Your task to perform on an android device: Turn off the flashlight Image 0: 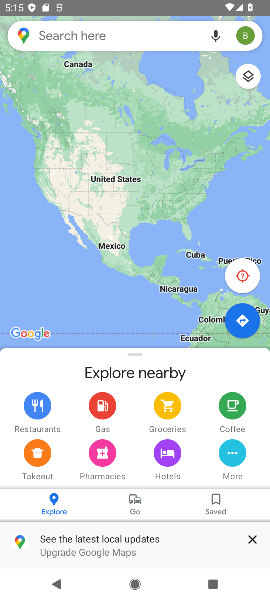
Step 0: press home button
Your task to perform on an android device: Turn off the flashlight Image 1: 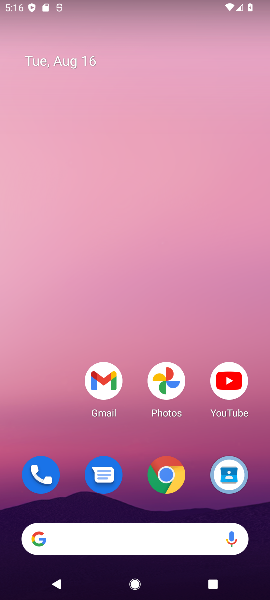
Step 1: drag from (206, 452) to (87, 1)
Your task to perform on an android device: Turn off the flashlight Image 2: 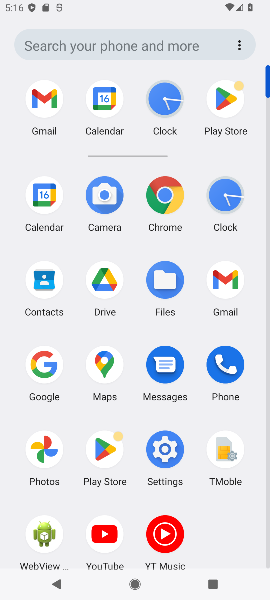
Step 2: click (159, 457)
Your task to perform on an android device: Turn off the flashlight Image 3: 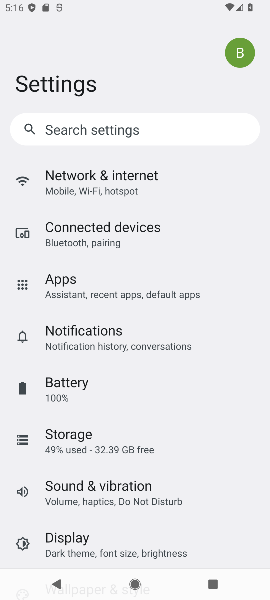
Step 3: task complete